Your task to perform on an android device: check android version Image 0: 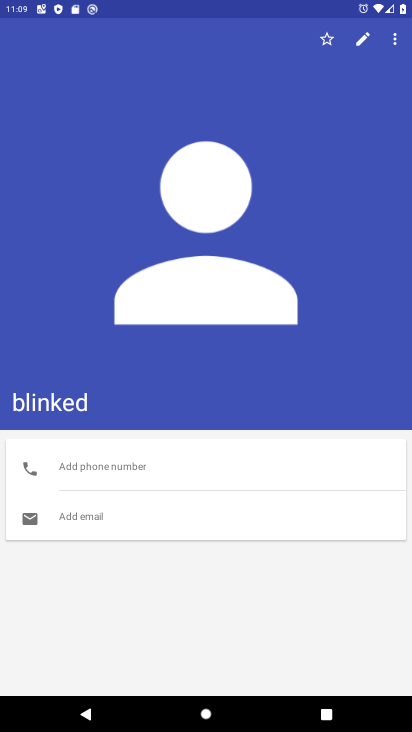
Step 0: press home button
Your task to perform on an android device: check android version Image 1: 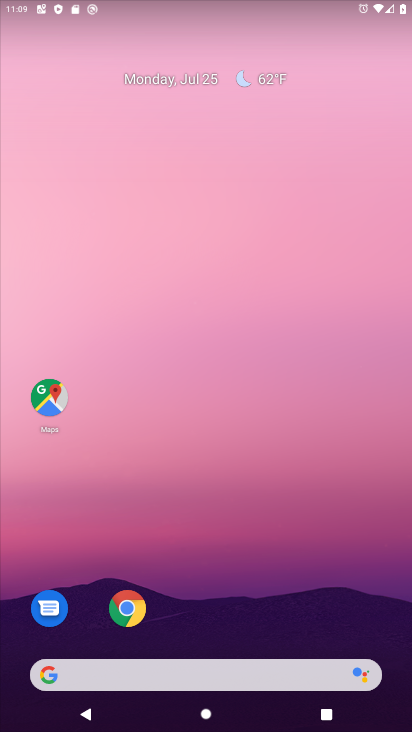
Step 1: drag from (255, 620) to (194, 72)
Your task to perform on an android device: check android version Image 2: 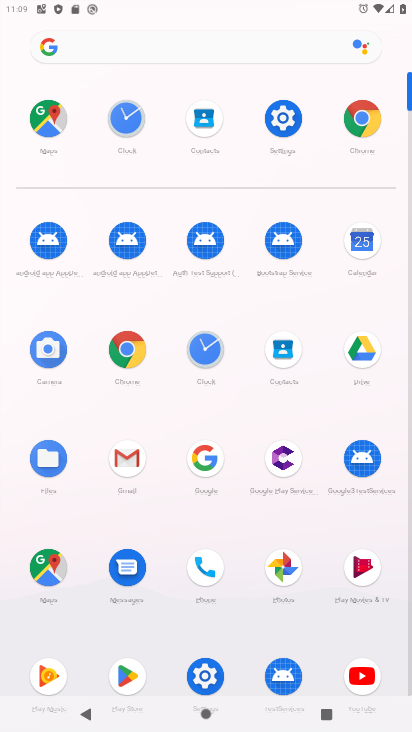
Step 2: click (206, 664)
Your task to perform on an android device: check android version Image 3: 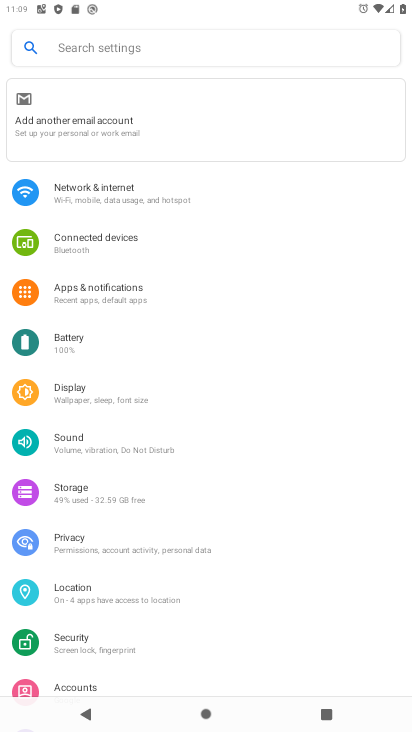
Step 3: drag from (127, 628) to (177, 0)
Your task to perform on an android device: check android version Image 4: 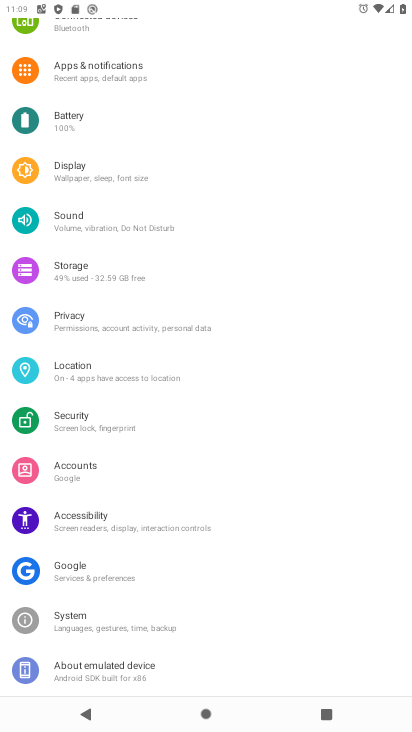
Step 4: click (120, 672)
Your task to perform on an android device: check android version Image 5: 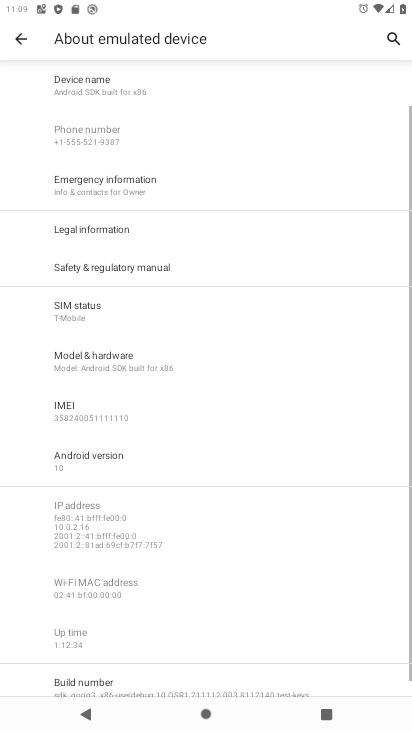
Step 5: click (100, 471)
Your task to perform on an android device: check android version Image 6: 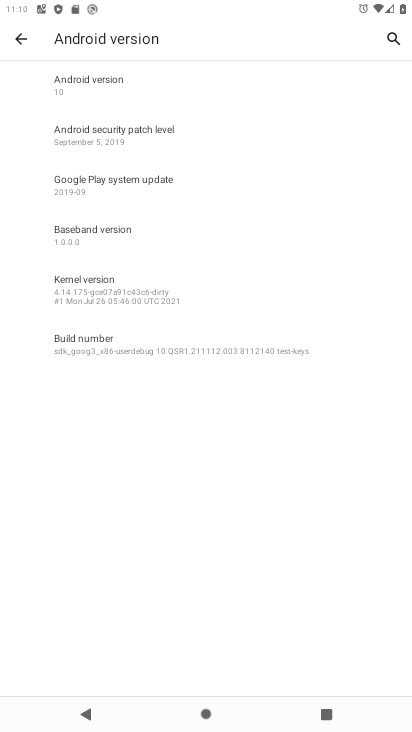
Step 6: task complete